Your task to perform on an android device: Show me productivity apps on the Play Store Image 0: 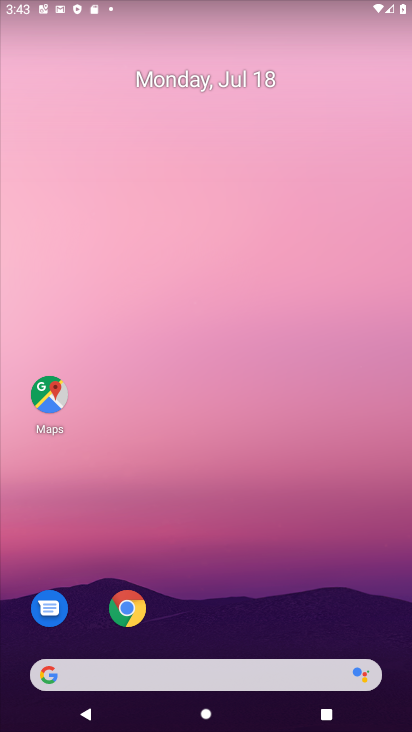
Step 0: drag from (242, 649) to (268, 39)
Your task to perform on an android device: Show me productivity apps on the Play Store Image 1: 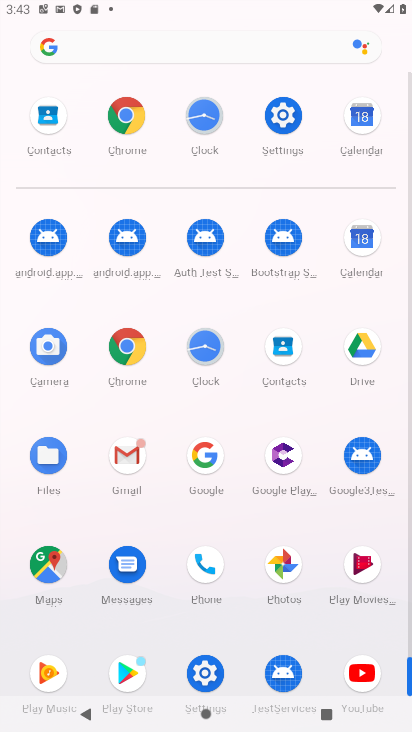
Step 1: drag from (206, 541) to (222, 264)
Your task to perform on an android device: Show me productivity apps on the Play Store Image 2: 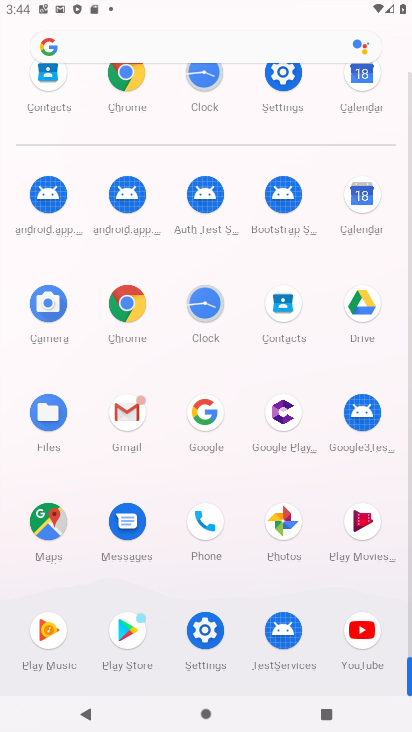
Step 2: click (132, 640)
Your task to perform on an android device: Show me productivity apps on the Play Store Image 3: 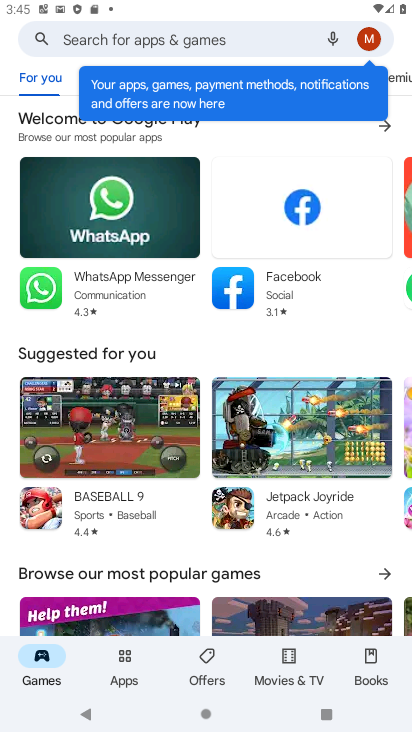
Step 3: click (193, 36)
Your task to perform on an android device: Show me productivity apps on the Play Store Image 4: 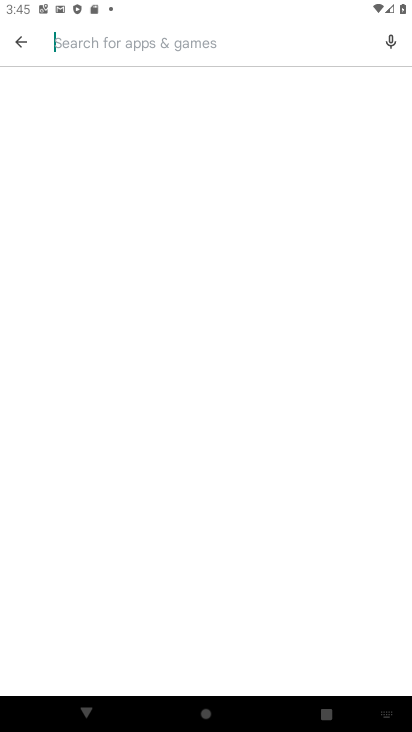
Step 4: type "productivity aaps"
Your task to perform on an android device: Show me productivity apps on the Play Store Image 5: 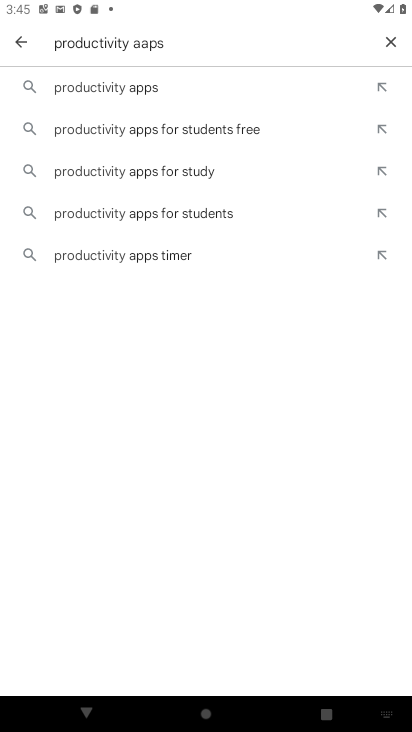
Step 5: type "]"
Your task to perform on an android device: Show me productivity apps on the Play Store Image 6: 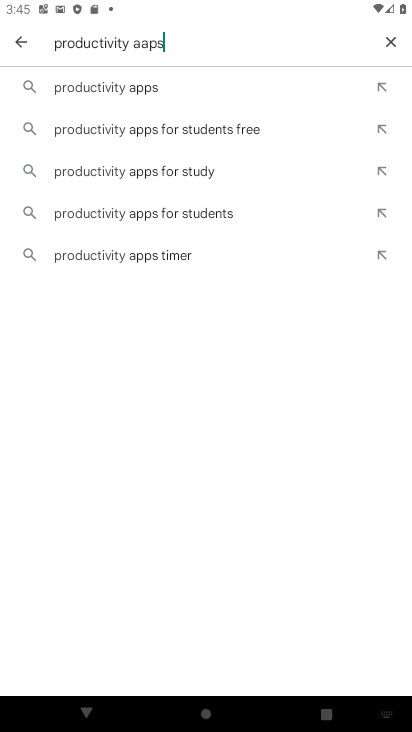
Step 6: click (197, 77)
Your task to perform on an android device: Show me productivity apps on the Play Store Image 7: 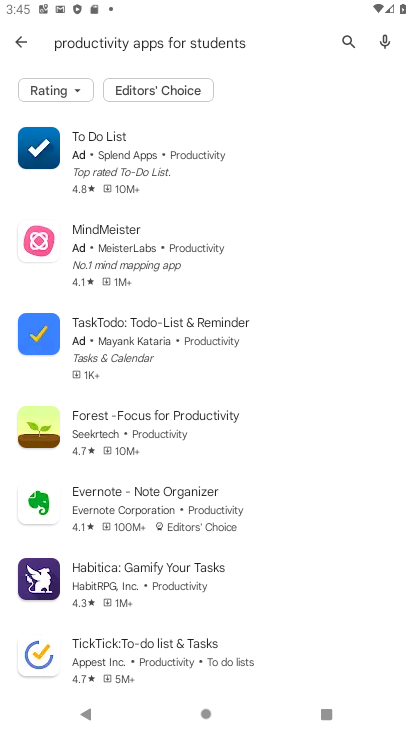
Step 7: task complete